Your task to perform on an android device: Open the web browser Image 0: 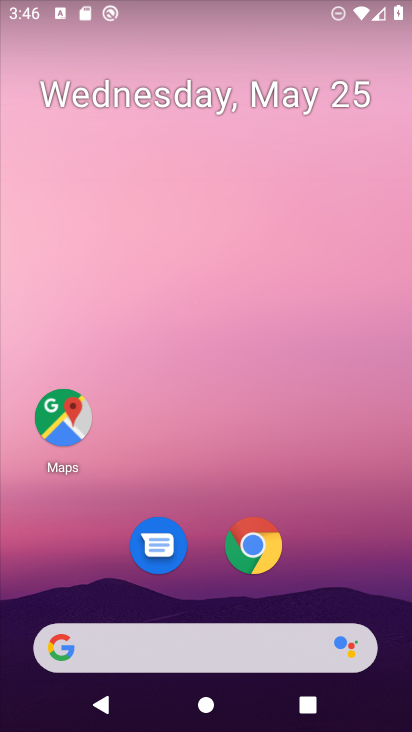
Step 0: click (247, 553)
Your task to perform on an android device: Open the web browser Image 1: 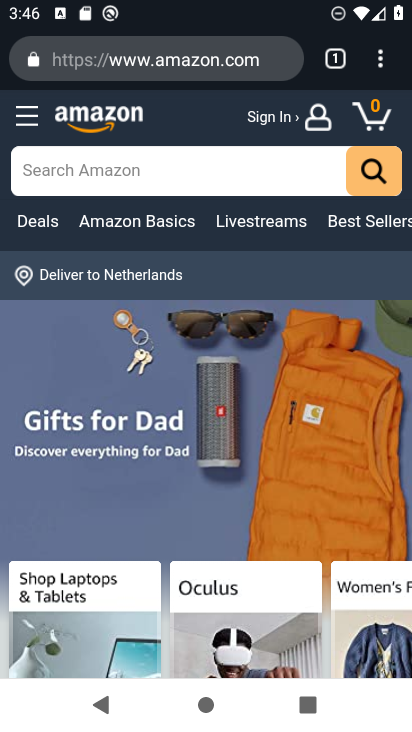
Step 1: task complete